Your task to perform on an android device: check storage Image 0: 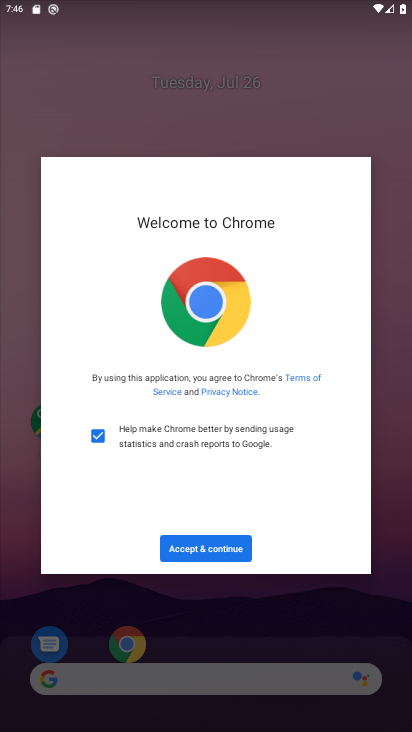
Step 0: click (208, 552)
Your task to perform on an android device: check storage Image 1: 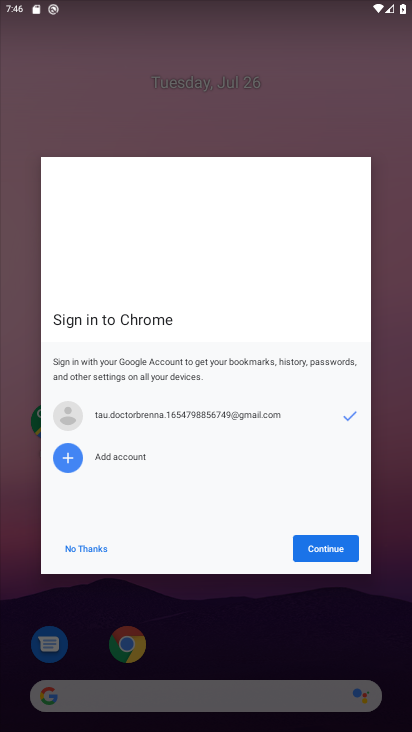
Step 1: click (321, 537)
Your task to perform on an android device: check storage Image 2: 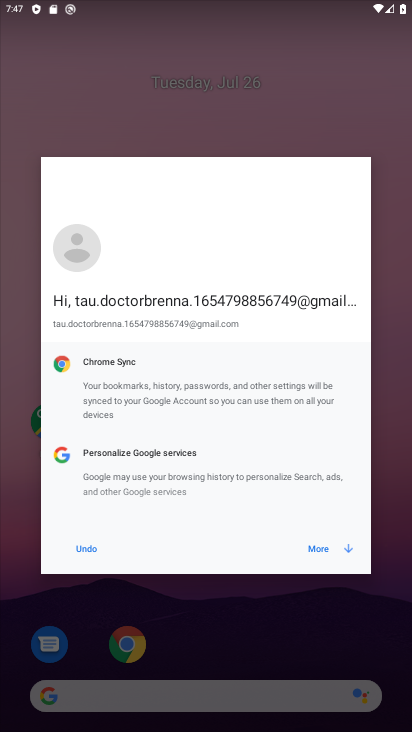
Step 2: click (316, 546)
Your task to perform on an android device: check storage Image 3: 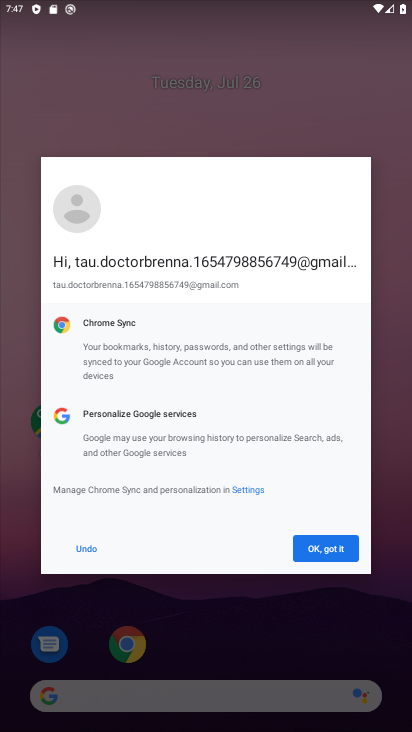
Step 3: click (316, 546)
Your task to perform on an android device: check storage Image 4: 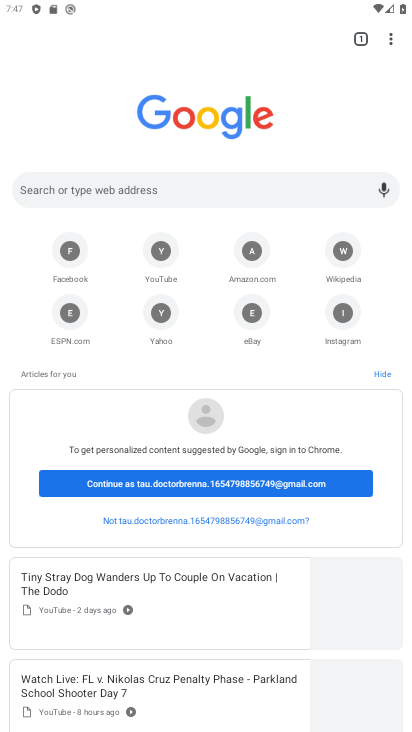
Step 4: press home button
Your task to perform on an android device: check storage Image 5: 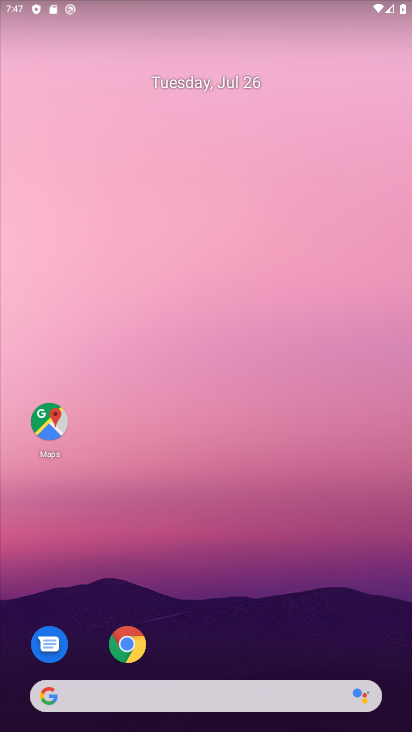
Step 5: drag from (201, 651) to (257, 146)
Your task to perform on an android device: check storage Image 6: 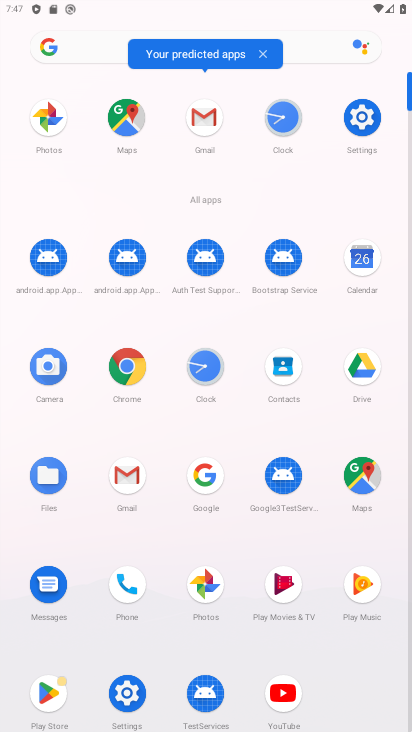
Step 6: click (369, 104)
Your task to perform on an android device: check storage Image 7: 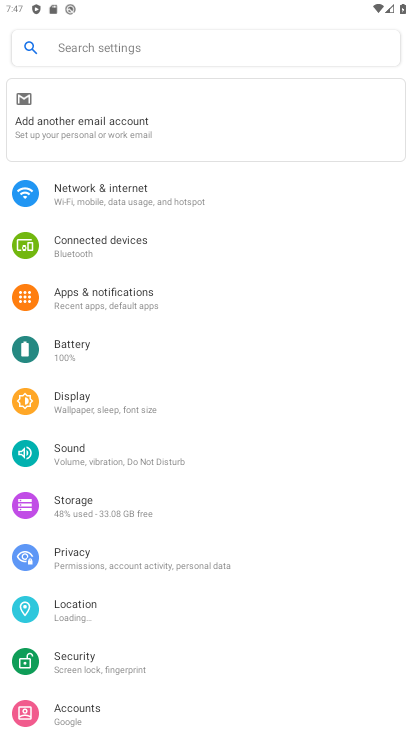
Step 7: click (83, 504)
Your task to perform on an android device: check storage Image 8: 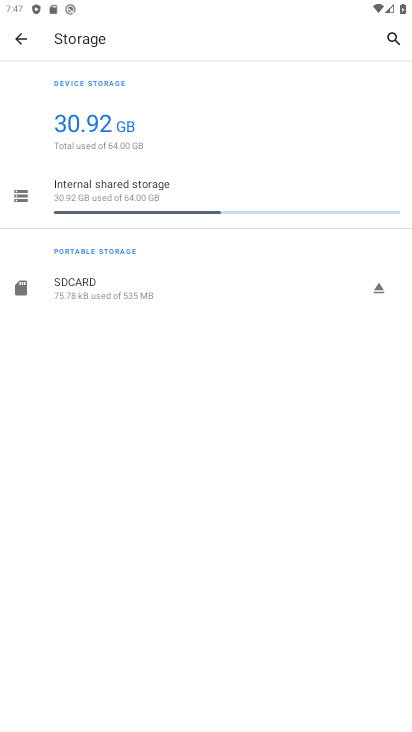
Step 8: task complete